Your task to perform on an android device: Is it going to rain this weekend? Image 0: 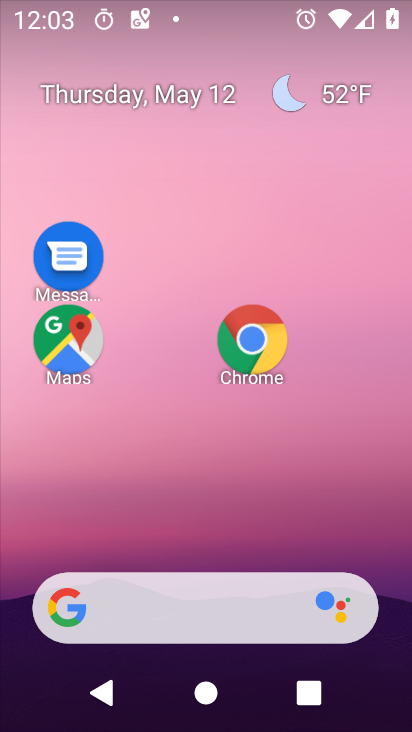
Step 0: drag from (202, 524) to (145, 55)
Your task to perform on an android device: Is it going to rain this weekend? Image 1: 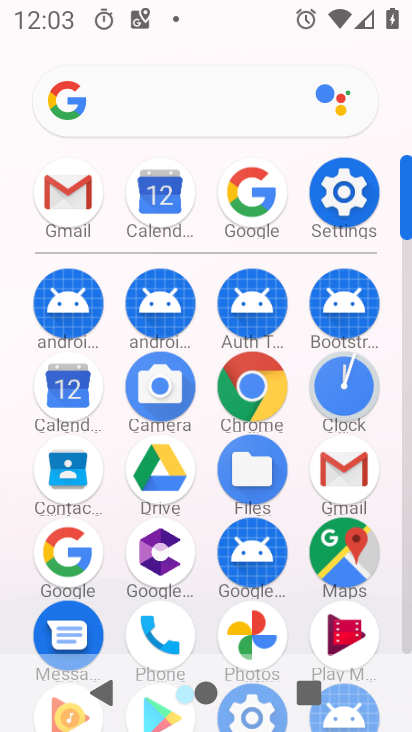
Step 1: click (246, 196)
Your task to perform on an android device: Is it going to rain this weekend? Image 2: 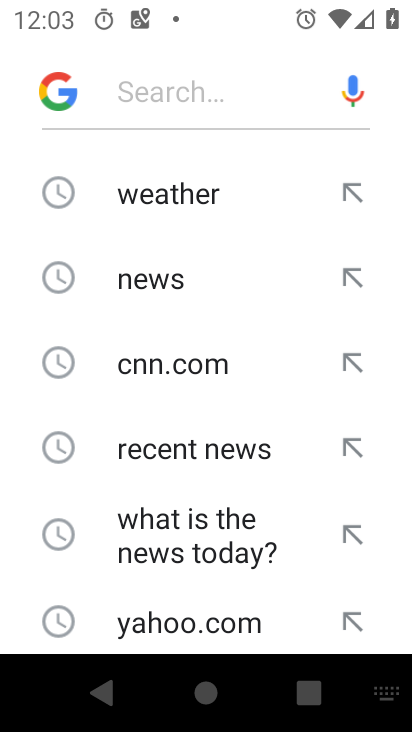
Step 2: type "is it going to rain this weekend"
Your task to perform on an android device: Is it going to rain this weekend? Image 3: 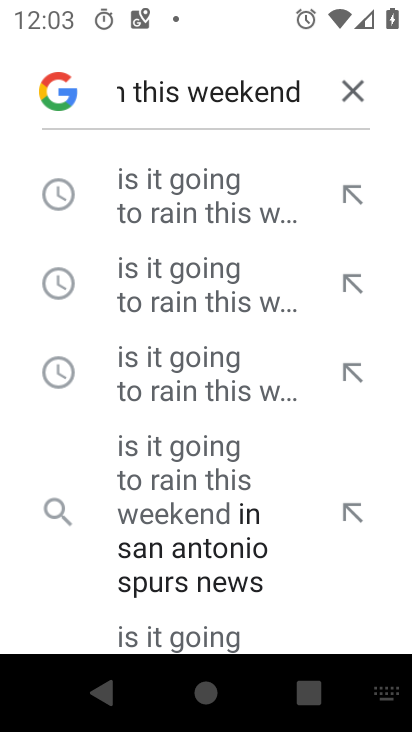
Step 3: click (164, 200)
Your task to perform on an android device: Is it going to rain this weekend? Image 4: 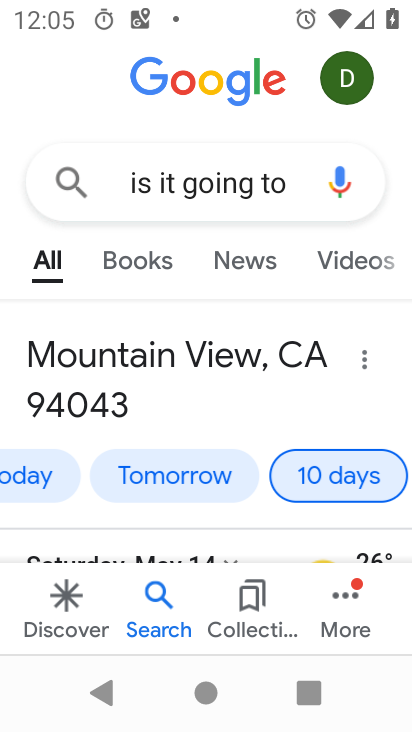
Step 4: task complete